Your task to perform on an android device: Search for pizza restaurants on Maps Image 0: 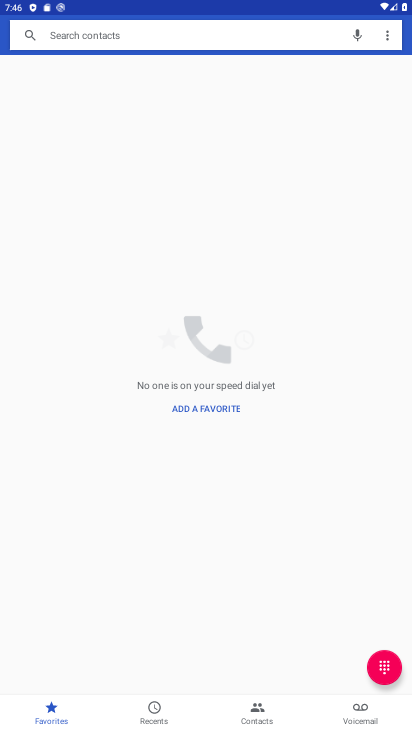
Step 0: drag from (166, 595) to (248, 262)
Your task to perform on an android device: Search for pizza restaurants on Maps Image 1: 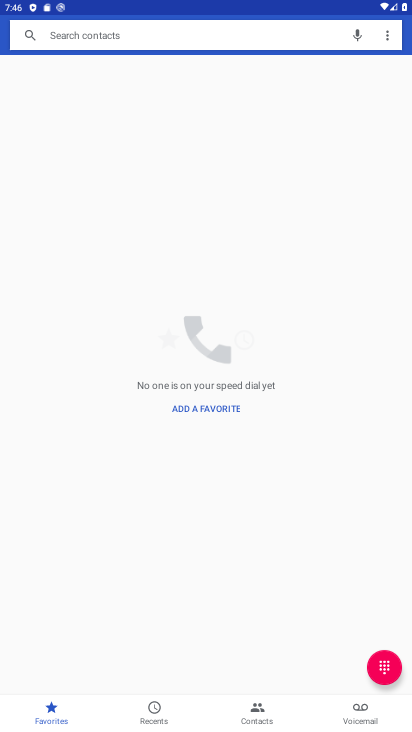
Step 1: press home button
Your task to perform on an android device: Search for pizza restaurants on Maps Image 2: 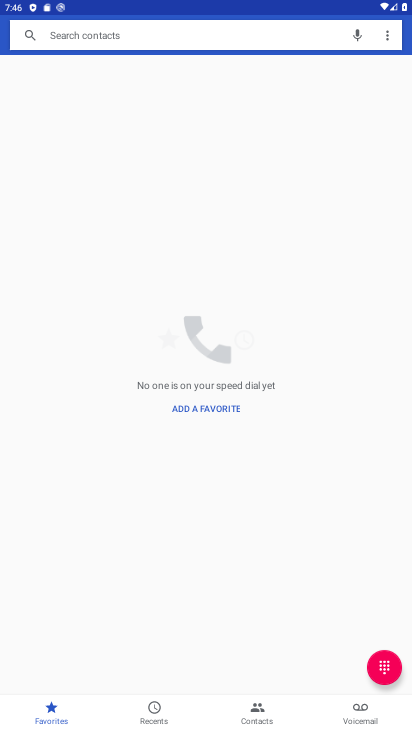
Step 2: drag from (221, 572) to (281, 149)
Your task to perform on an android device: Search for pizza restaurants on Maps Image 3: 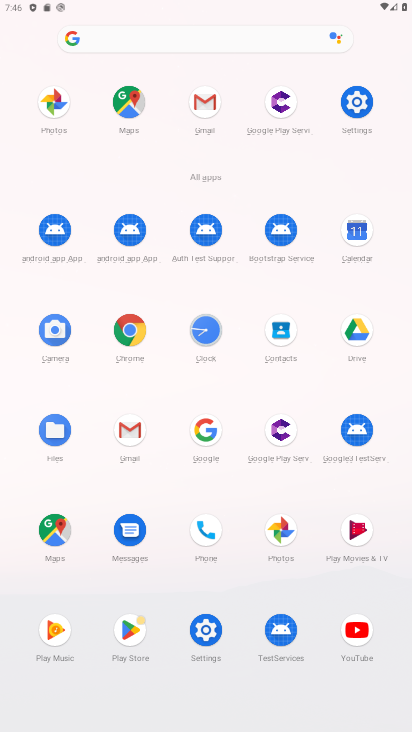
Step 3: click (48, 520)
Your task to perform on an android device: Search for pizza restaurants on Maps Image 4: 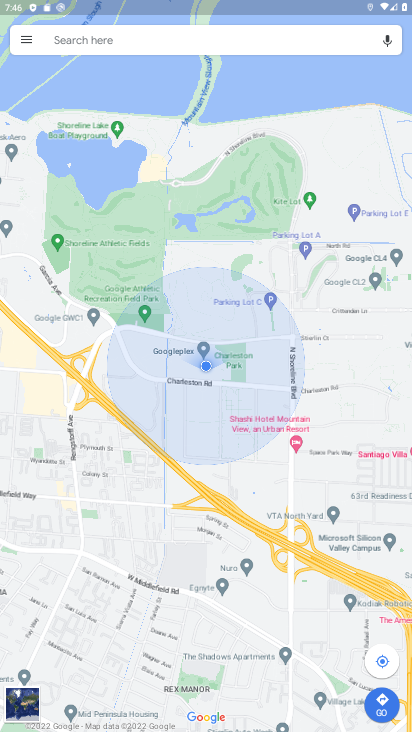
Step 4: click (112, 37)
Your task to perform on an android device: Search for pizza restaurants on Maps Image 5: 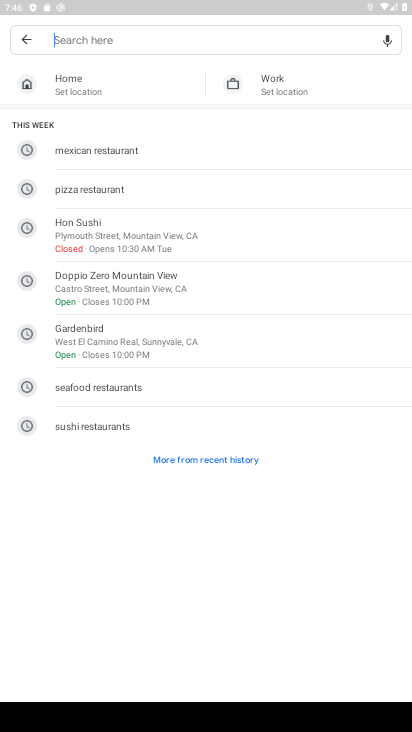
Step 5: click (78, 187)
Your task to perform on an android device: Search for pizza restaurants on Maps Image 6: 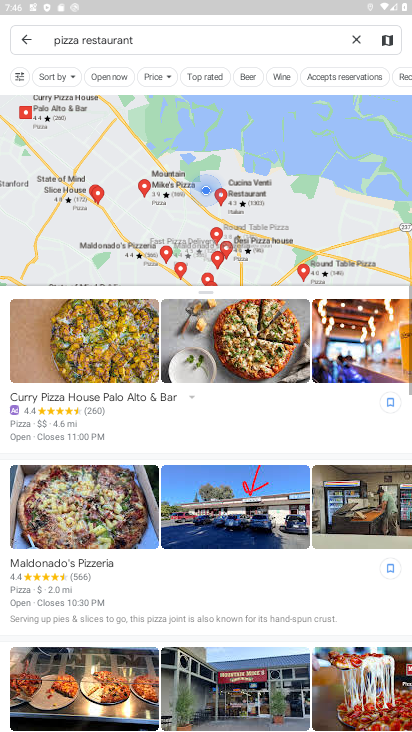
Step 6: task complete